Your task to perform on an android device: Clear the shopping cart on bestbuy.com. Image 0: 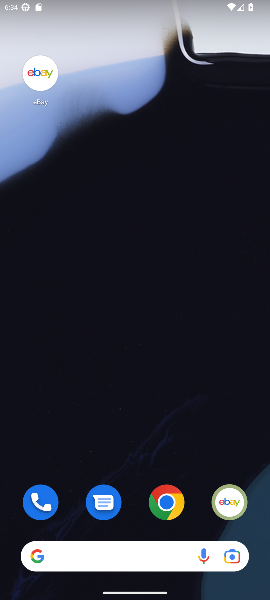
Step 0: drag from (112, 425) to (137, 202)
Your task to perform on an android device: Clear the shopping cart on bestbuy.com. Image 1: 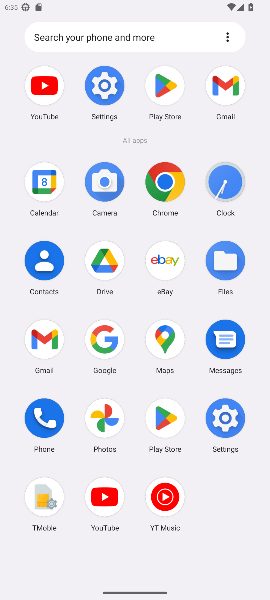
Step 1: click (106, 331)
Your task to perform on an android device: Clear the shopping cart on bestbuy.com. Image 2: 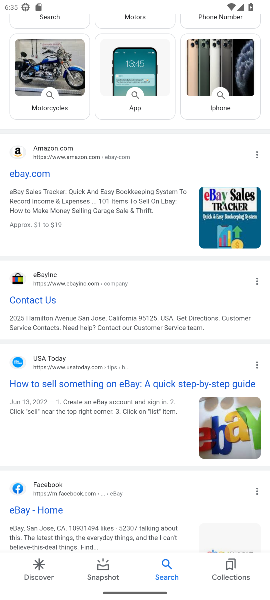
Step 2: drag from (184, 119) to (174, 461)
Your task to perform on an android device: Clear the shopping cart on bestbuy.com. Image 3: 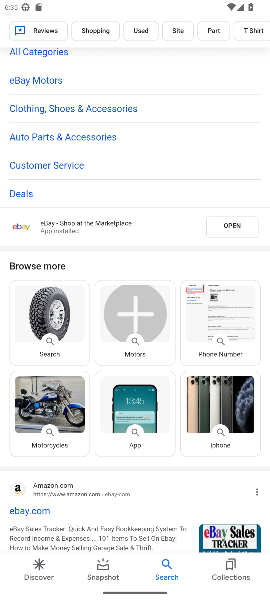
Step 3: drag from (93, 68) to (109, 468)
Your task to perform on an android device: Clear the shopping cart on bestbuy.com. Image 4: 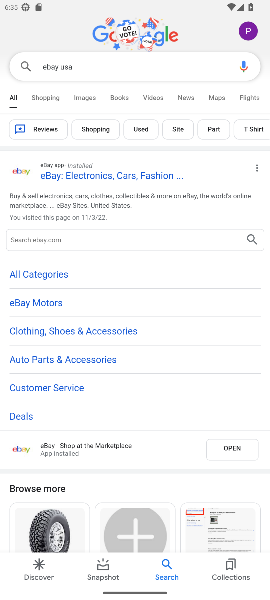
Step 4: click (120, 55)
Your task to perform on an android device: Clear the shopping cart on bestbuy.com. Image 5: 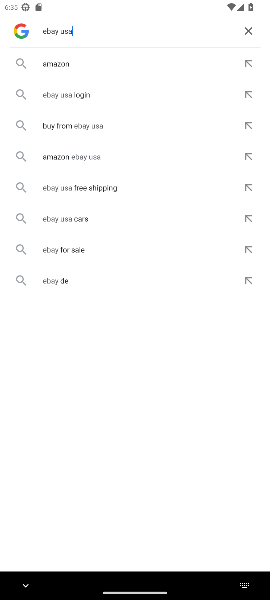
Step 5: click (244, 27)
Your task to perform on an android device: Clear the shopping cart on bestbuy.com. Image 6: 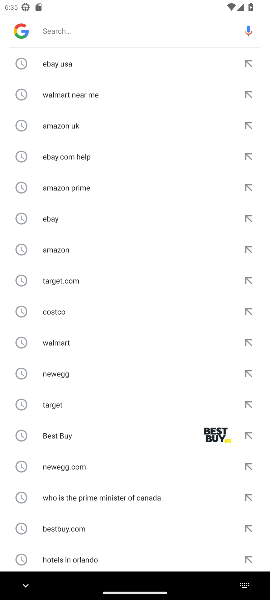
Step 6: click (95, 30)
Your task to perform on an android device: Clear the shopping cart on bestbuy.com. Image 7: 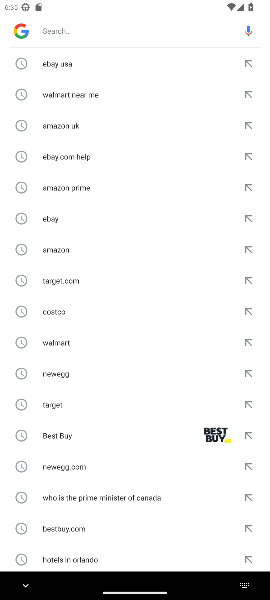
Step 7: type "bestbuy "
Your task to perform on an android device: Clear the shopping cart on bestbuy.com. Image 8: 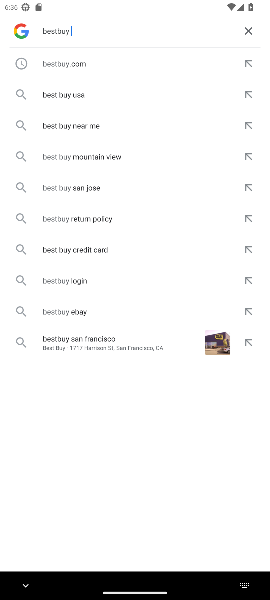
Step 8: click (75, 68)
Your task to perform on an android device: Clear the shopping cart on bestbuy.com. Image 9: 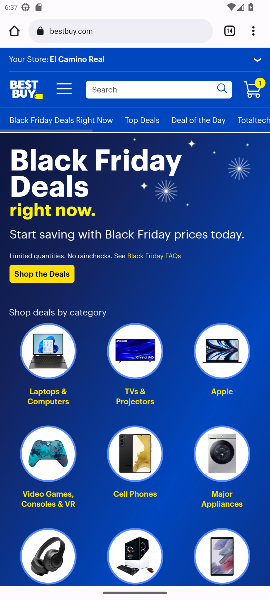
Step 9: click (255, 89)
Your task to perform on an android device: Clear the shopping cart on bestbuy.com. Image 10: 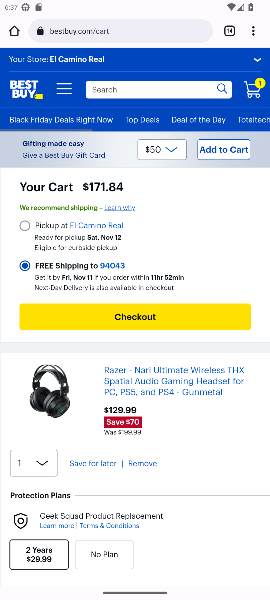
Step 10: click (252, 87)
Your task to perform on an android device: Clear the shopping cart on bestbuy.com. Image 11: 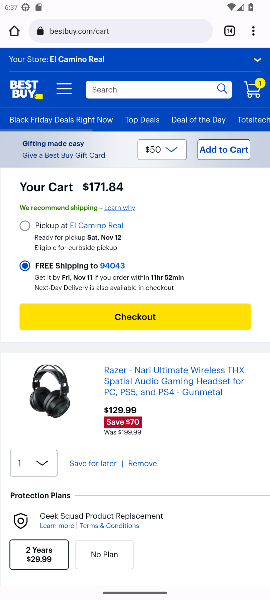
Step 11: task complete